Your task to perform on an android device: What's the weather going to be tomorrow? Image 0: 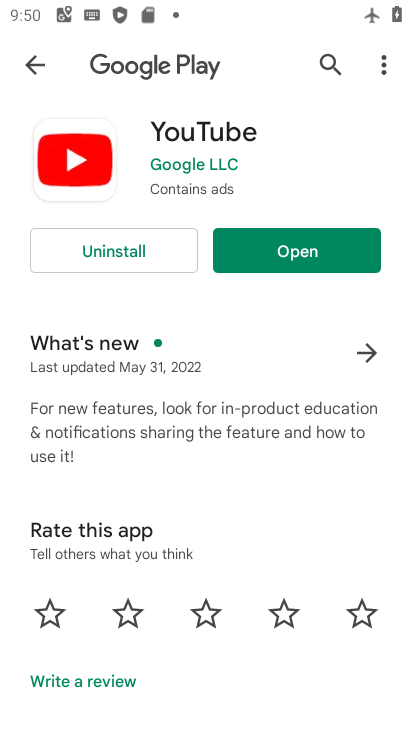
Step 0: press home button
Your task to perform on an android device: What's the weather going to be tomorrow? Image 1: 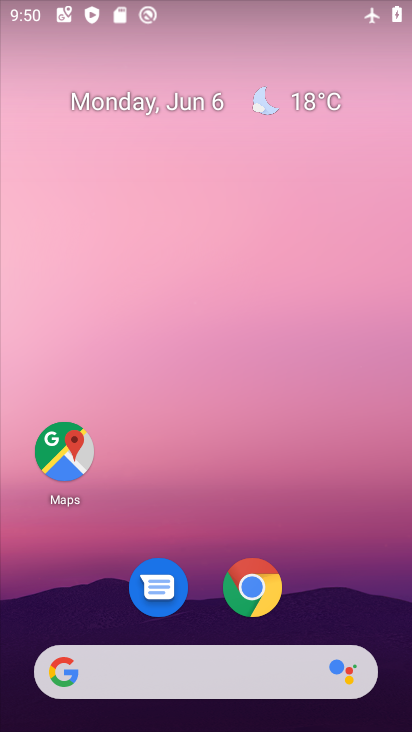
Step 1: click (312, 100)
Your task to perform on an android device: What's the weather going to be tomorrow? Image 2: 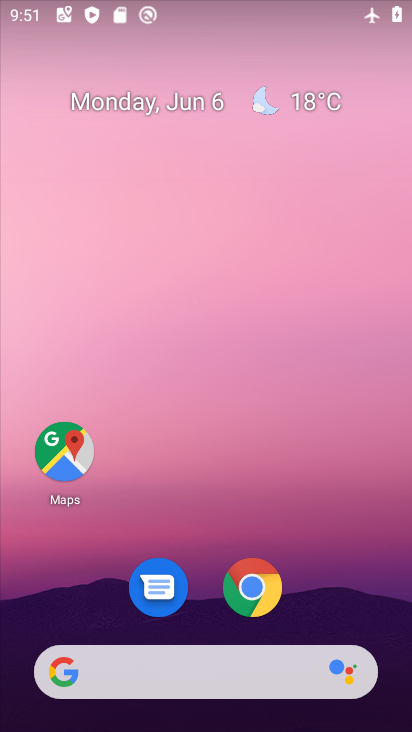
Step 2: click (323, 99)
Your task to perform on an android device: What's the weather going to be tomorrow? Image 3: 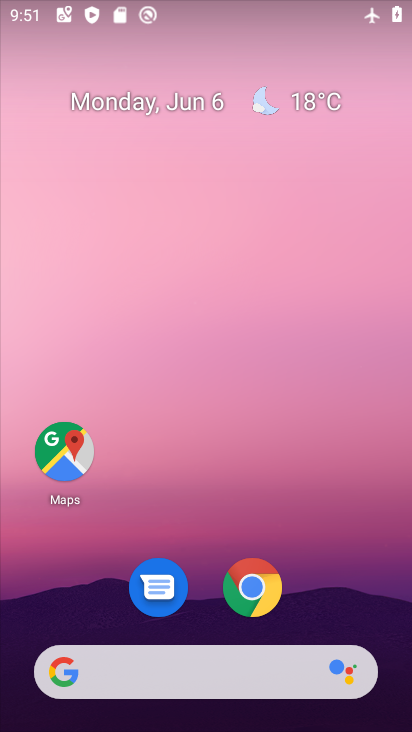
Step 3: drag from (355, 553) to (313, 161)
Your task to perform on an android device: What's the weather going to be tomorrow? Image 4: 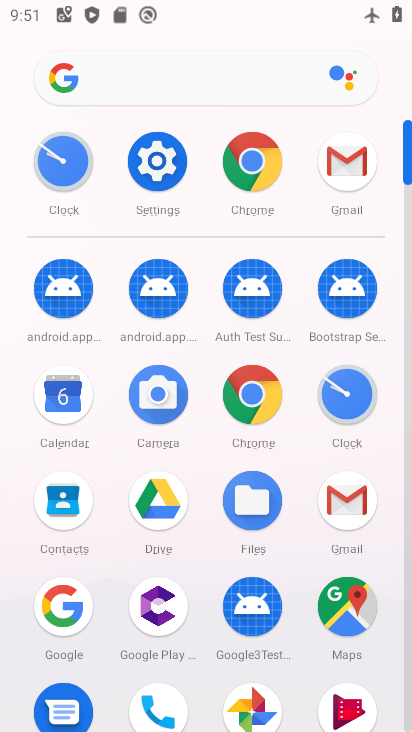
Step 4: click (252, 387)
Your task to perform on an android device: What's the weather going to be tomorrow? Image 5: 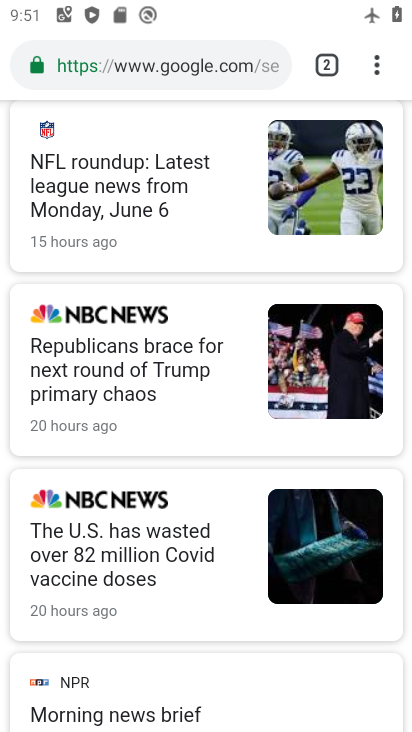
Step 5: click (204, 67)
Your task to perform on an android device: What's the weather going to be tomorrow? Image 6: 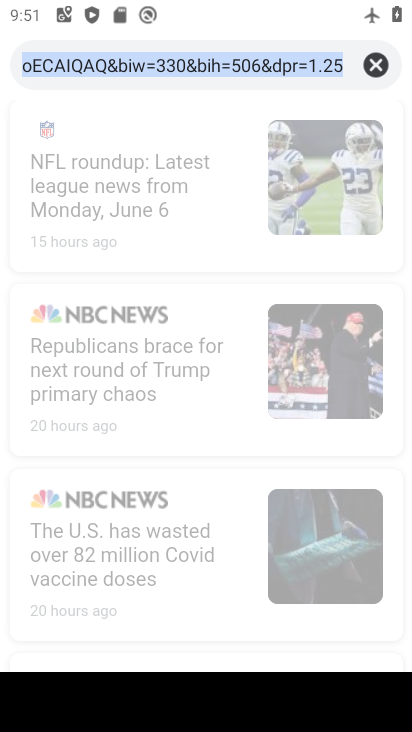
Step 6: type "weather"
Your task to perform on an android device: What's the weather going to be tomorrow? Image 7: 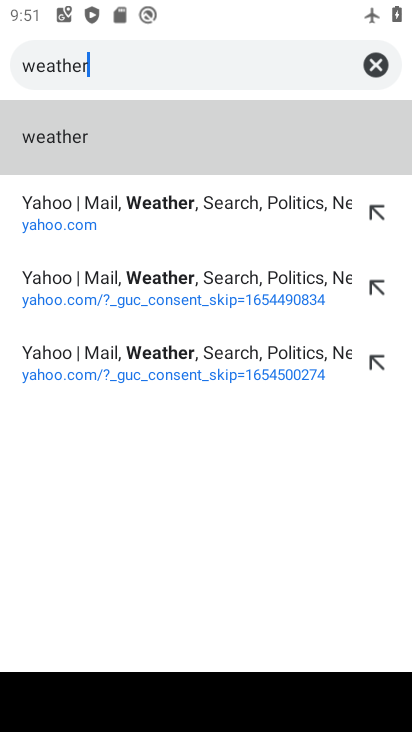
Step 7: click (44, 135)
Your task to perform on an android device: What's the weather going to be tomorrow? Image 8: 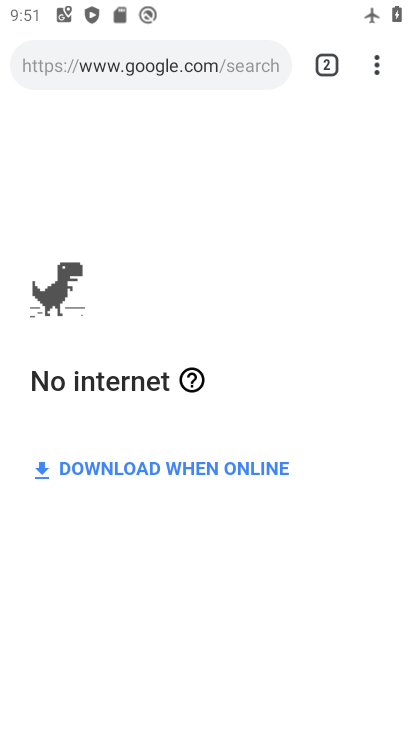
Step 8: task complete